Your task to perform on an android device: Do I have any events this weekend? Image 0: 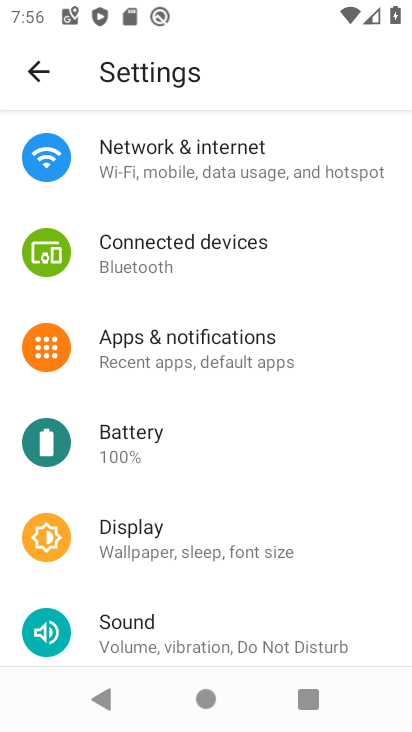
Step 0: press home button
Your task to perform on an android device: Do I have any events this weekend? Image 1: 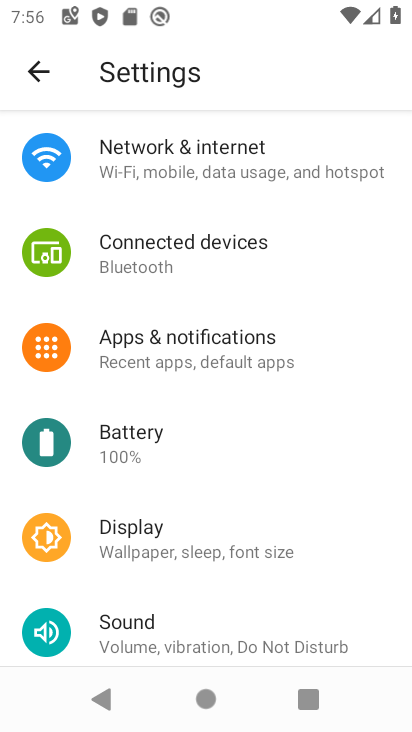
Step 1: press home button
Your task to perform on an android device: Do I have any events this weekend? Image 2: 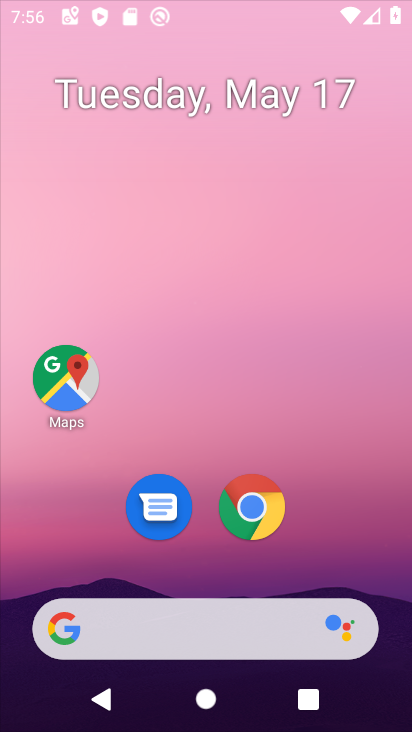
Step 2: press home button
Your task to perform on an android device: Do I have any events this weekend? Image 3: 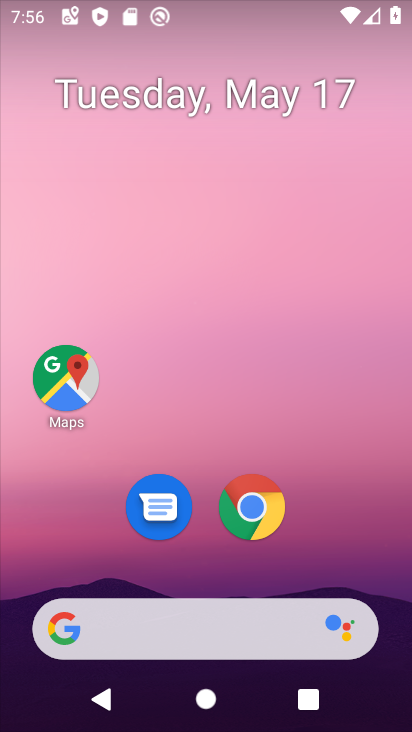
Step 3: drag from (286, 650) to (243, 147)
Your task to perform on an android device: Do I have any events this weekend? Image 4: 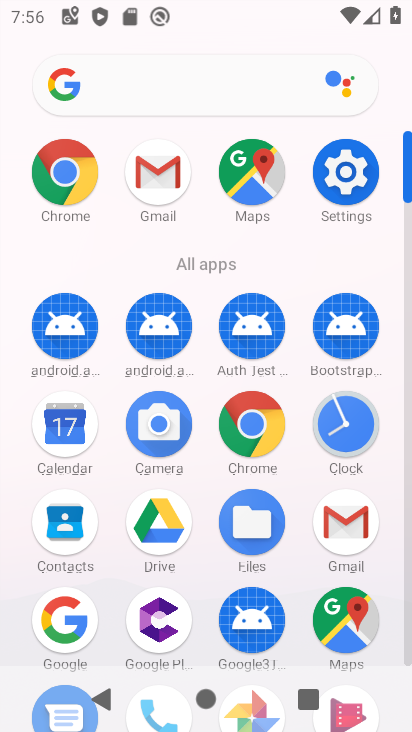
Step 4: click (349, 422)
Your task to perform on an android device: Do I have any events this weekend? Image 5: 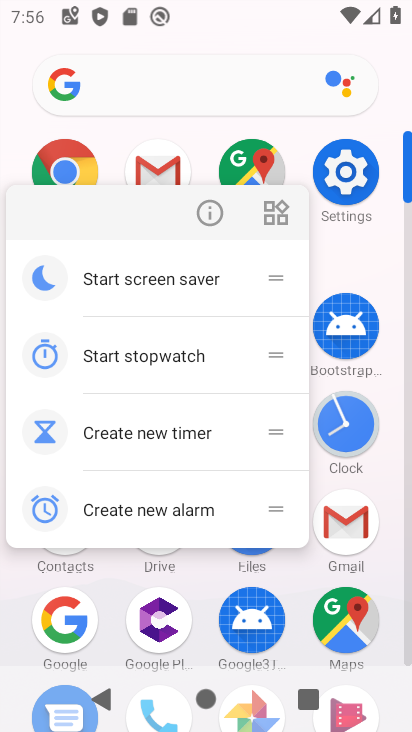
Step 5: click (349, 422)
Your task to perform on an android device: Do I have any events this weekend? Image 6: 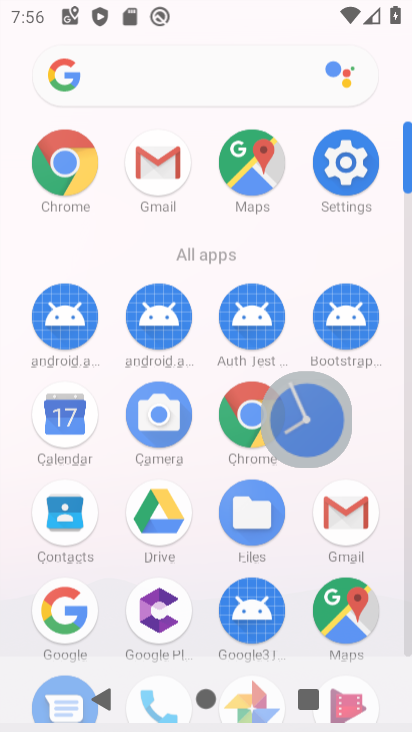
Step 6: click (349, 422)
Your task to perform on an android device: Do I have any events this weekend? Image 7: 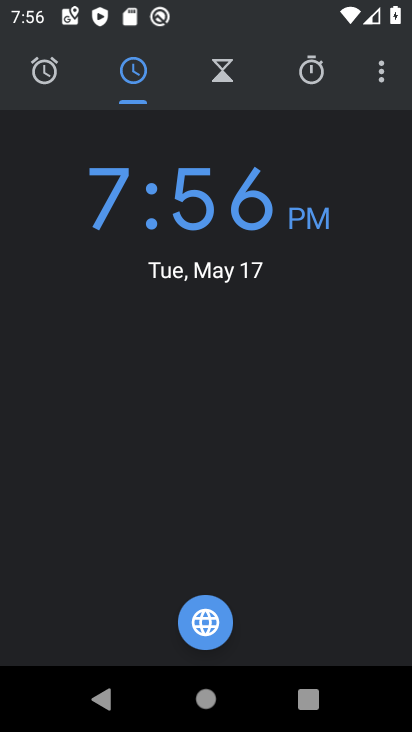
Step 7: press home button
Your task to perform on an android device: Do I have any events this weekend? Image 8: 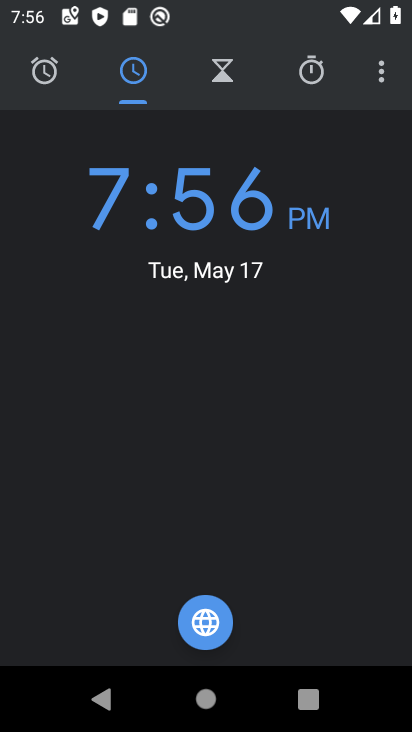
Step 8: press home button
Your task to perform on an android device: Do I have any events this weekend? Image 9: 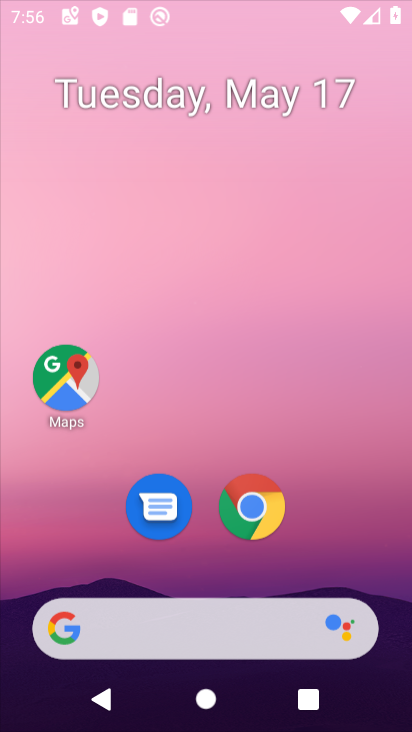
Step 9: press home button
Your task to perform on an android device: Do I have any events this weekend? Image 10: 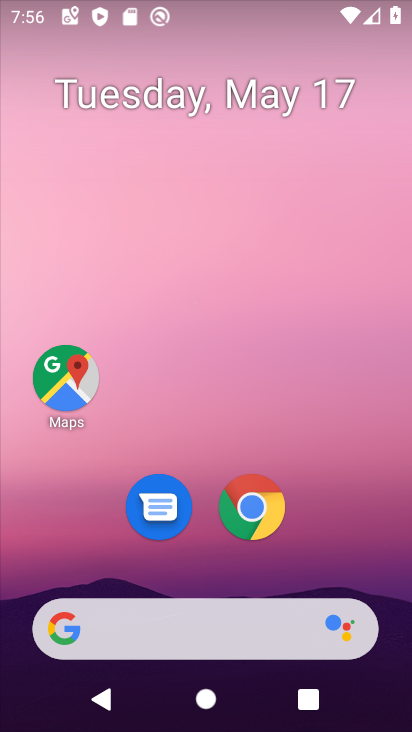
Step 10: drag from (332, 597) to (200, 140)
Your task to perform on an android device: Do I have any events this weekend? Image 11: 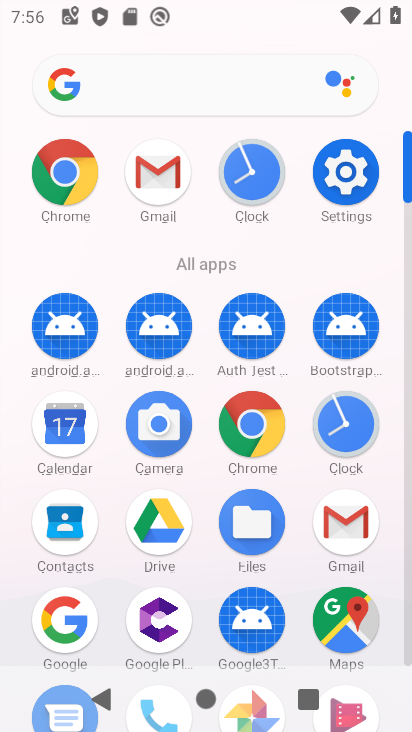
Step 11: click (58, 433)
Your task to perform on an android device: Do I have any events this weekend? Image 12: 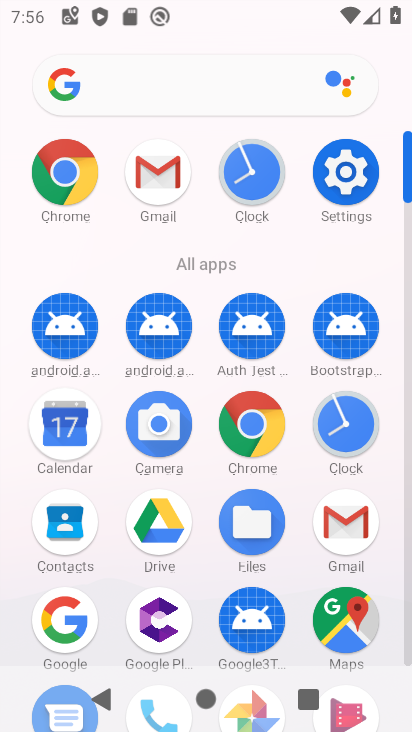
Step 12: click (65, 423)
Your task to perform on an android device: Do I have any events this weekend? Image 13: 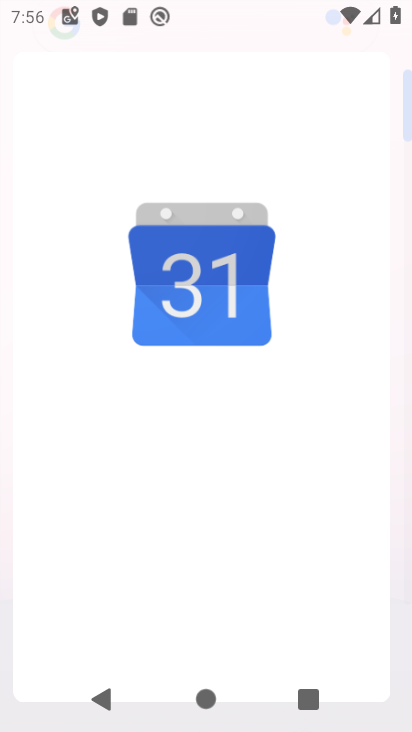
Step 13: click (65, 420)
Your task to perform on an android device: Do I have any events this weekend? Image 14: 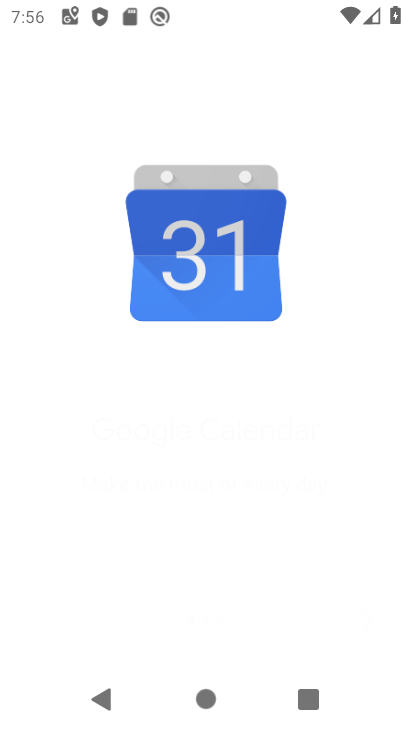
Step 14: click (69, 415)
Your task to perform on an android device: Do I have any events this weekend? Image 15: 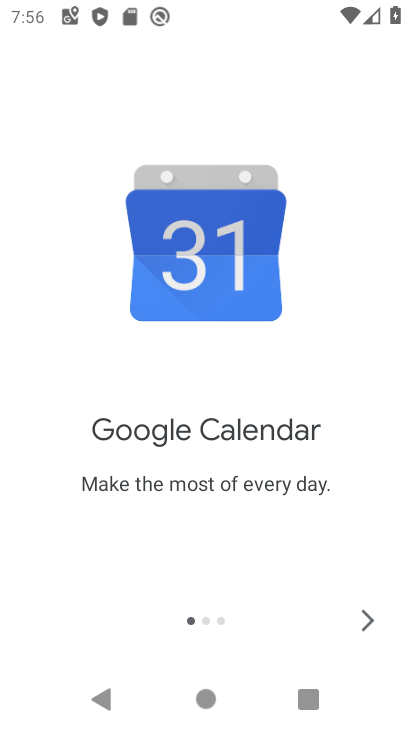
Step 15: click (361, 608)
Your task to perform on an android device: Do I have any events this weekend? Image 16: 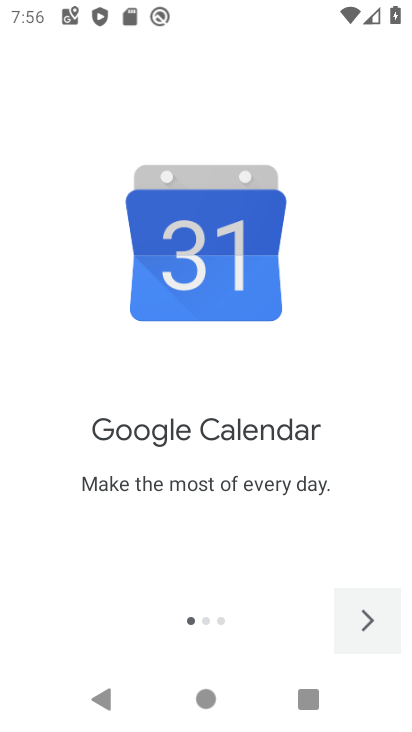
Step 16: click (361, 609)
Your task to perform on an android device: Do I have any events this weekend? Image 17: 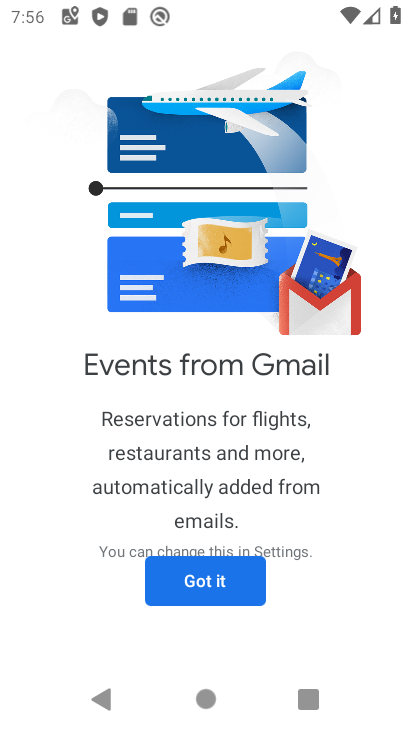
Step 17: click (242, 580)
Your task to perform on an android device: Do I have any events this weekend? Image 18: 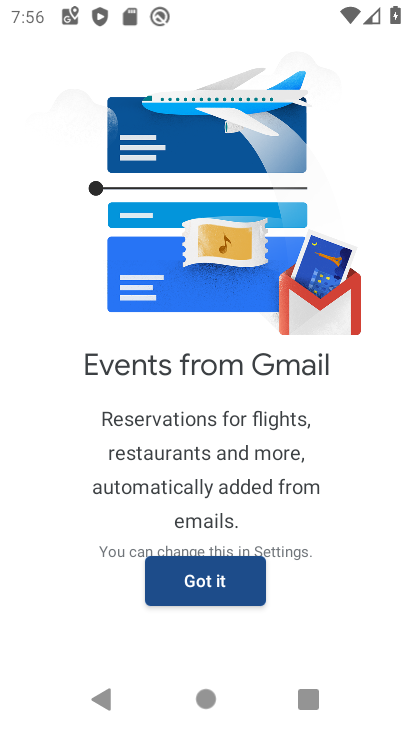
Step 18: click (241, 579)
Your task to perform on an android device: Do I have any events this weekend? Image 19: 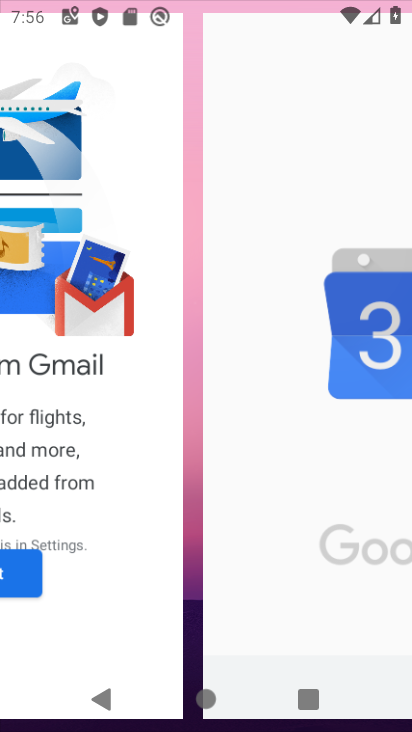
Step 19: click (241, 579)
Your task to perform on an android device: Do I have any events this weekend? Image 20: 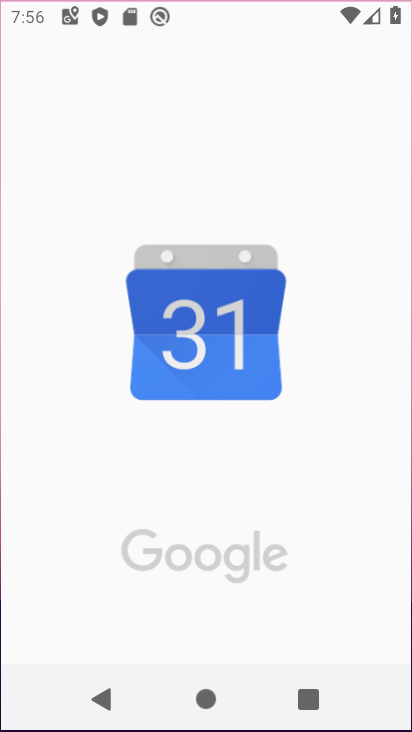
Step 20: click (240, 580)
Your task to perform on an android device: Do I have any events this weekend? Image 21: 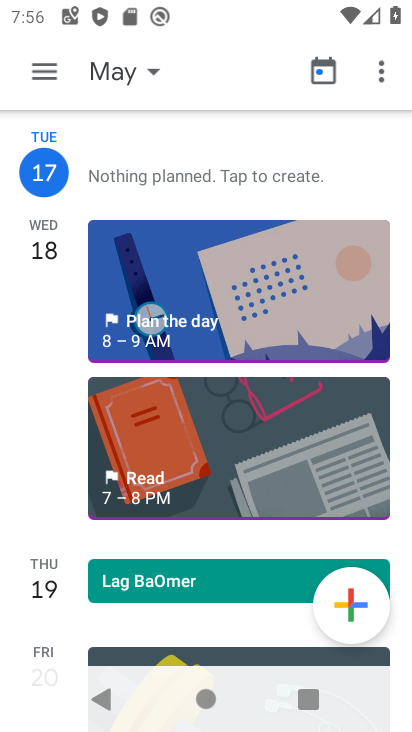
Step 21: drag from (196, 549) to (184, 275)
Your task to perform on an android device: Do I have any events this weekend? Image 22: 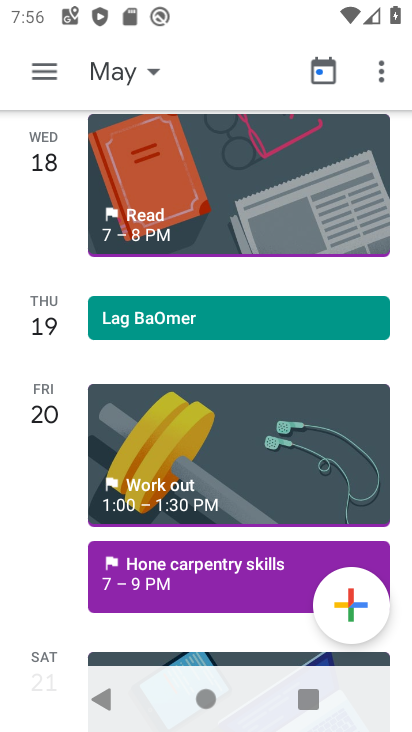
Step 22: drag from (209, 578) to (243, 115)
Your task to perform on an android device: Do I have any events this weekend? Image 23: 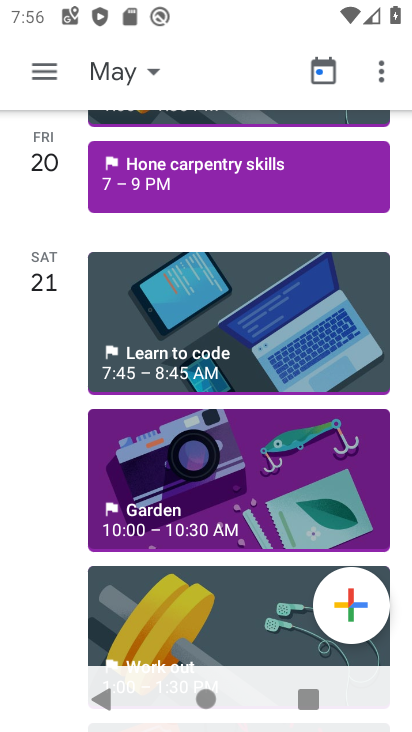
Step 23: drag from (249, 521) to (247, 191)
Your task to perform on an android device: Do I have any events this weekend? Image 24: 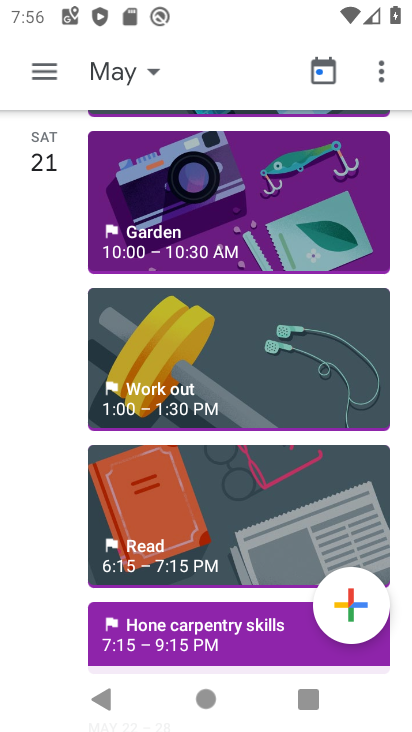
Step 24: click (143, 215)
Your task to perform on an android device: Do I have any events this weekend? Image 25: 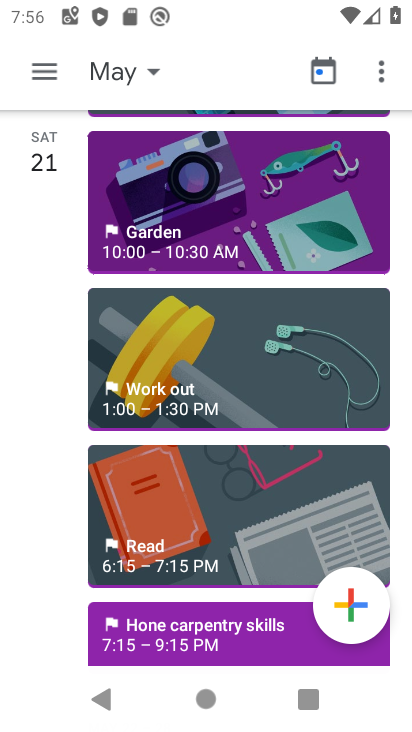
Step 25: click (143, 215)
Your task to perform on an android device: Do I have any events this weekend? Image 26: 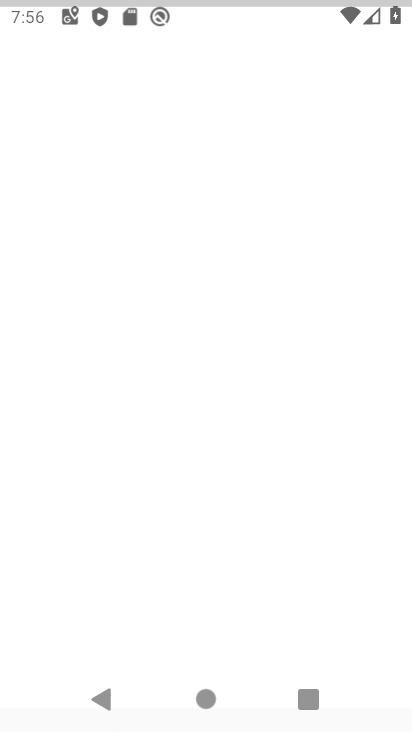
Step 26: click (143, 215)
Your task to perform on an android device: Do I have any events this weekend? Image 27: 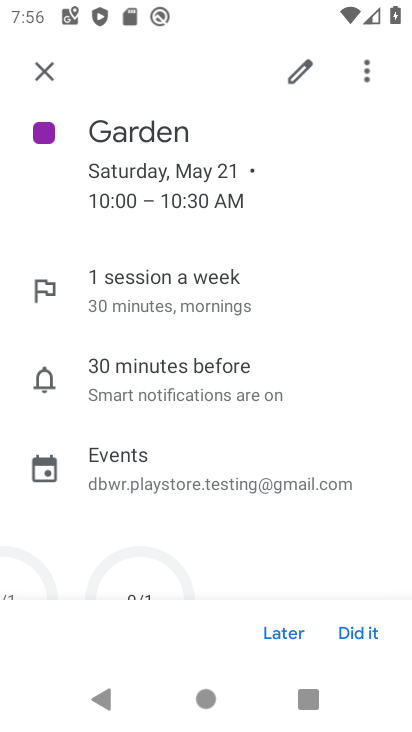
Step 27: task complete